Your task to perform on an android device: check out phone information Image 0: 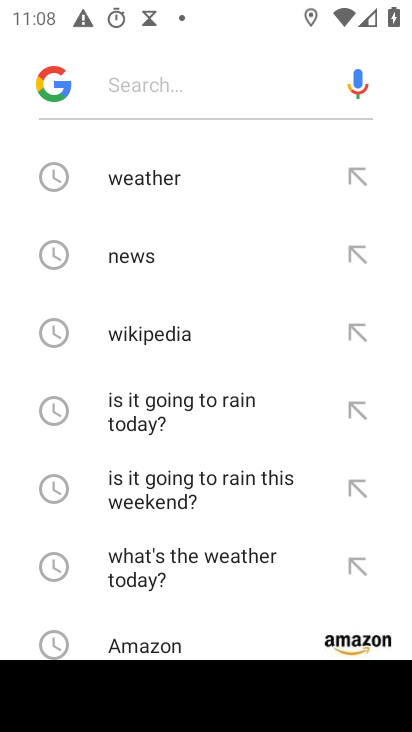
Step 0: press home button
Your task to perform on an android device: check out phone information Image 1: 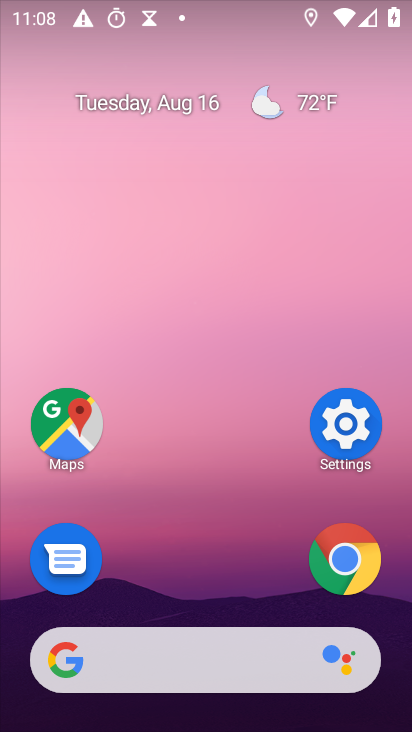
Step 1: drag from (178, 621) to (240, 169)
Your task to perform on an android device: check out phone information Image 2: 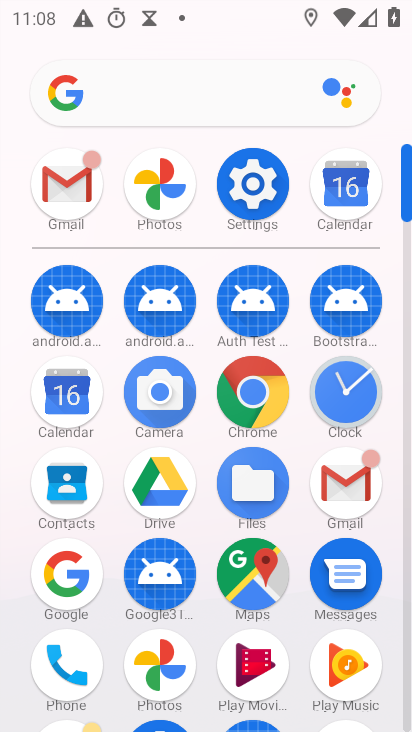
Step 2: drag from (211, 629) to (249, 174)
Your task to perform on an android device: check out phone information Image 3: 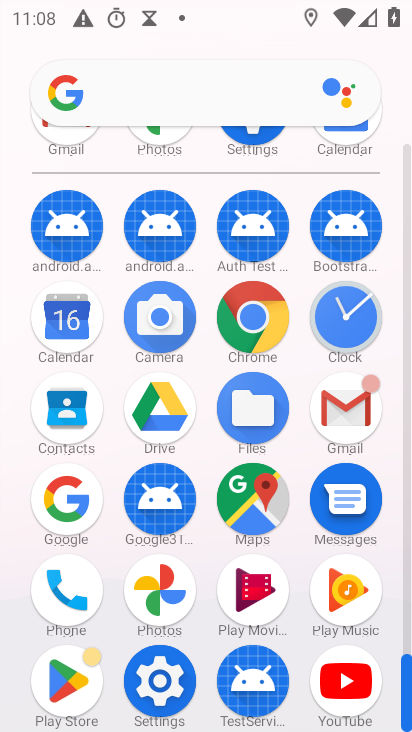
Step 3: click (170, 679)
Your task to perform on an android device: check out phone information Image 4: 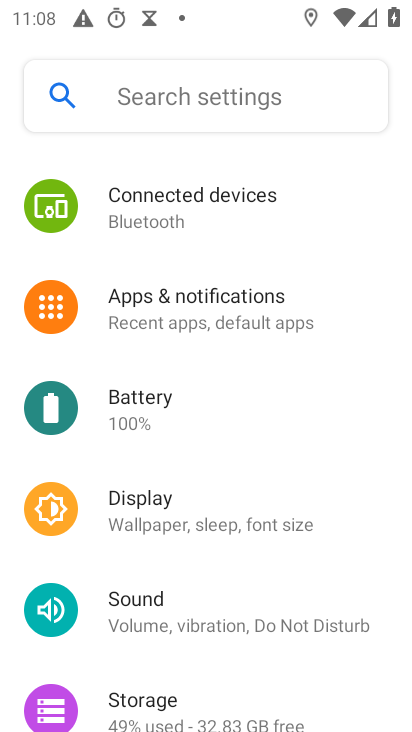
Step 4: drag from (225, 674) to (295, 105)
Your task to perform on an android device: check out phone information Image 5: 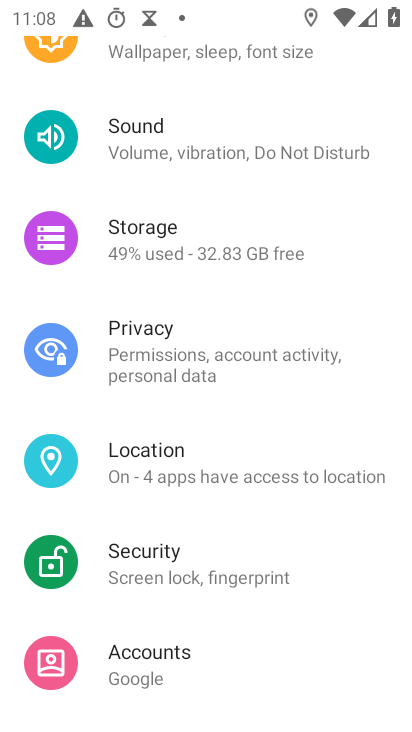
Step 5: drag from (254, 615) to (267, 76)
Your task to perform on an android device: check out phone information Image 6: 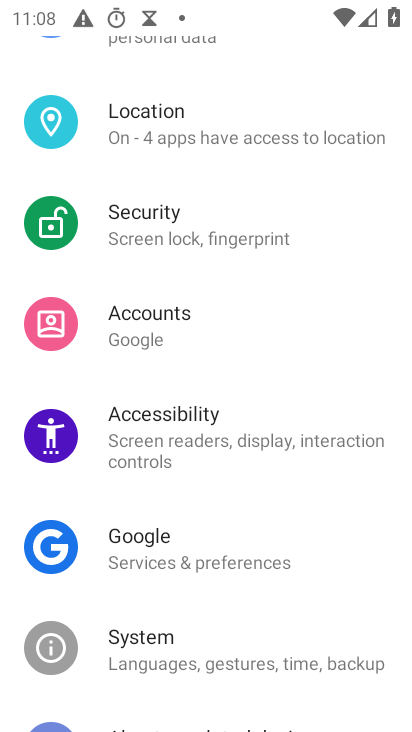
Step 6: drag from (228, 622) to (274, 129)
Your task to perform on an android device: check out phone information Image 7: 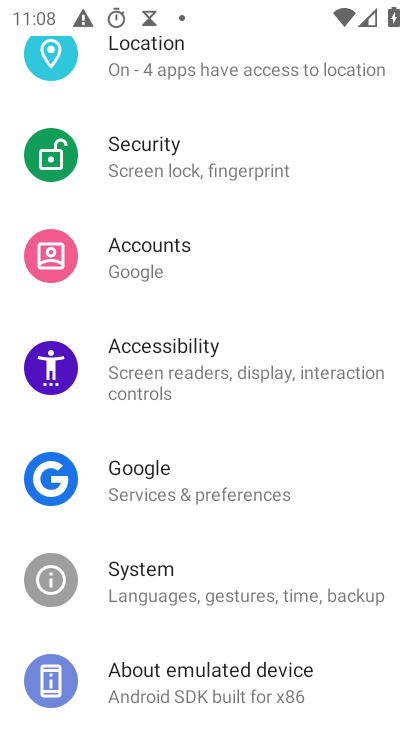
Step 7: click (231, 676)
Your task to perform on an android device: check out phone information Image 8: 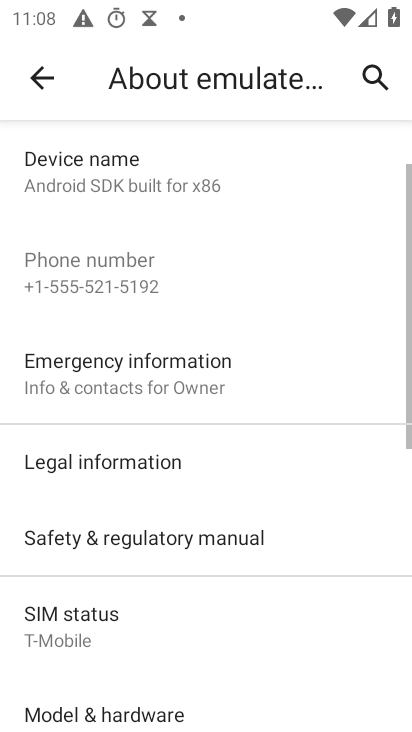
Step 8: task complete